Your task to perform on an android device: change text size in settings app Image 0: 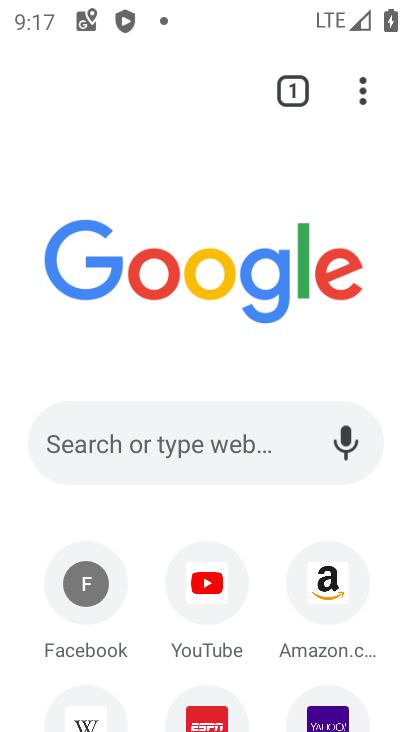
Step 0: click (368, 92)
Your task to perform on an android device: change text size in settings app Image 1: 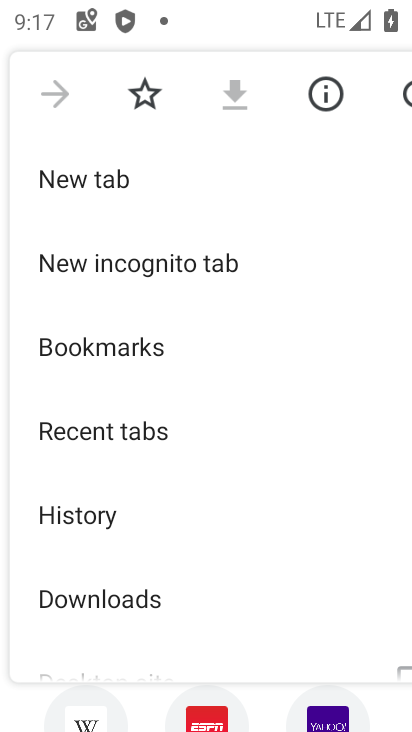
Step 1: drag from (201, 656) to (230, 439)
Your task to perform on an android device: change text size in settings app Image 2: 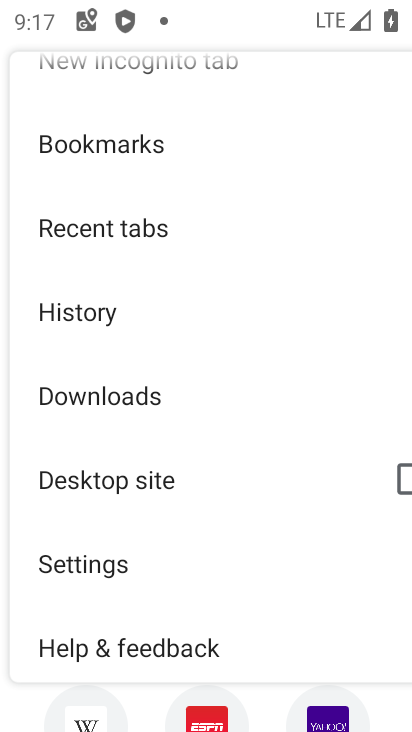
Step 2: press home button
Your task to perform on an android device: change text size in settings app Image 3: 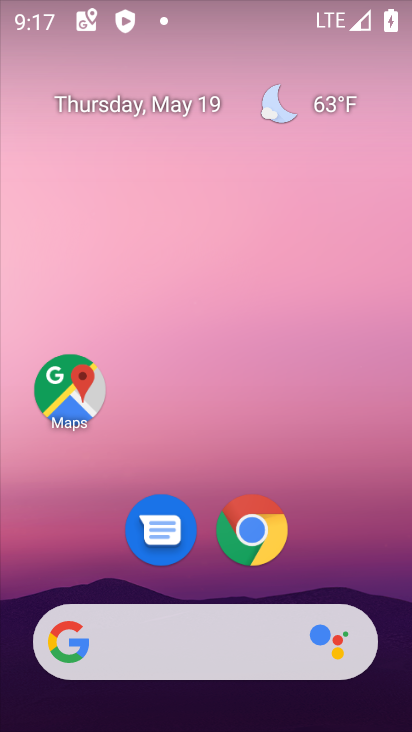
Step 3: drag from (181, 450) to (229, 226)
Your task to perform on an android device: change text size in settings app Image 4: 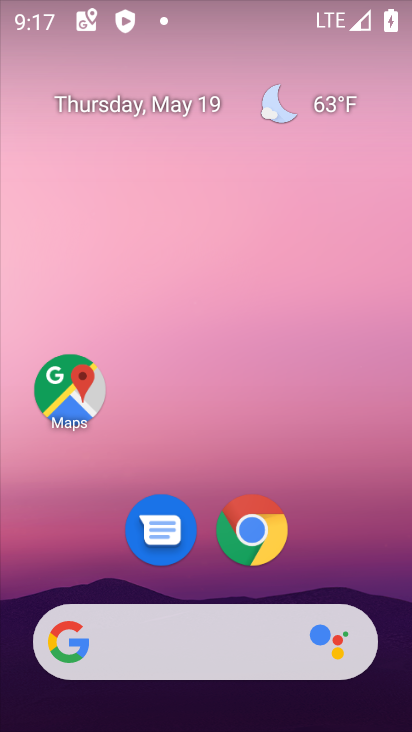
Step 4: drag from (233, 406) to (316, 1)
Your task to perform on an android device: change text size in settings app Image 5: 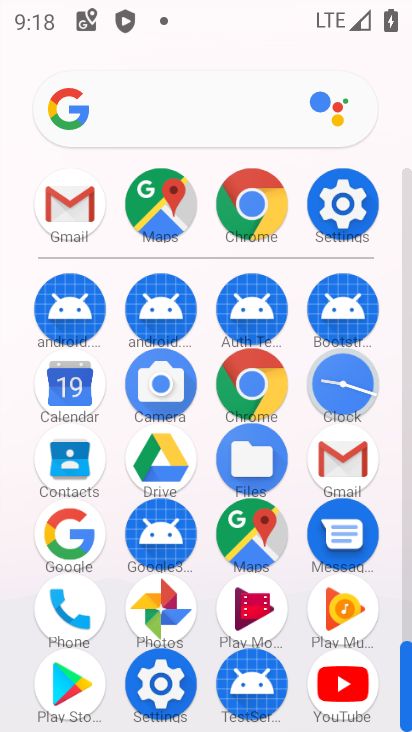
Step 5: click (342, 225)
Your task to perform on an android device: change text size in settings app Image 6: 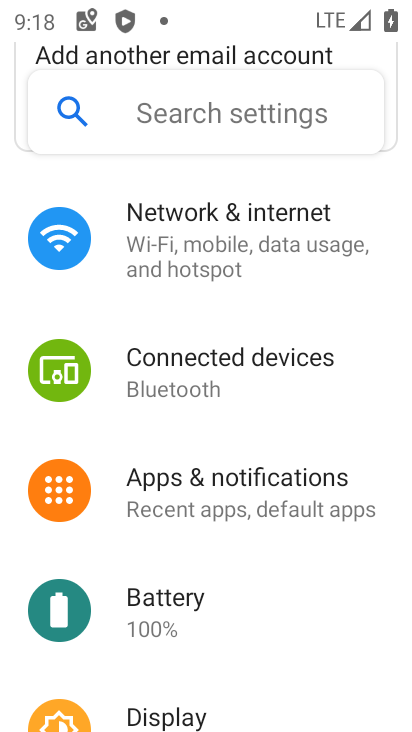
Step 6: click (255, 709)
Your task to perform on an android device: change text size in settings app Image 7: 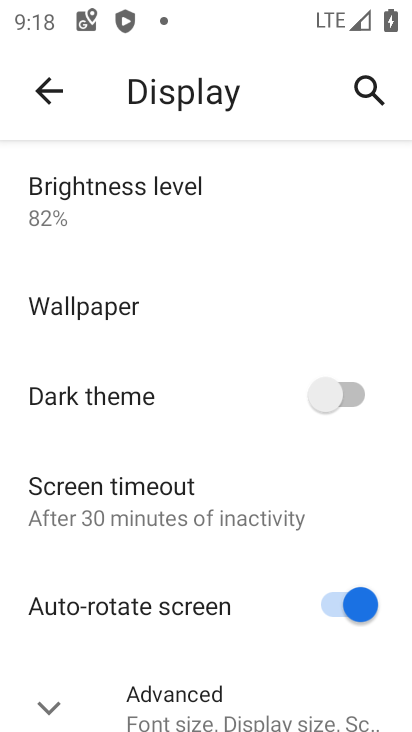
Step 7: click (249, 720)
Your task to perform on an android device: change text size in settings app Image 8: 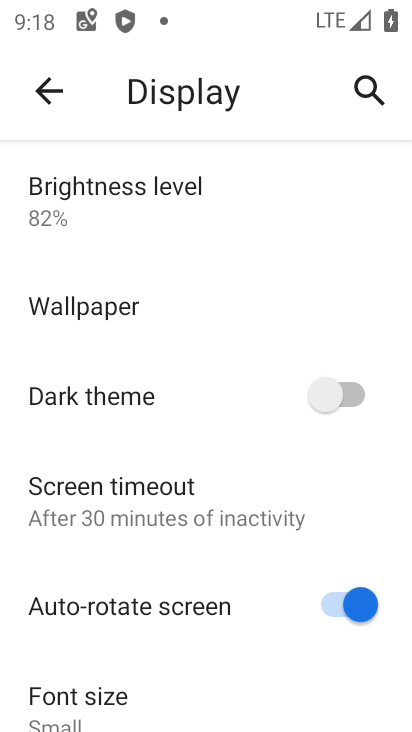
Step 8: click (245, 707)
Your task to perform on an android device: change text size in settings app Image 9: 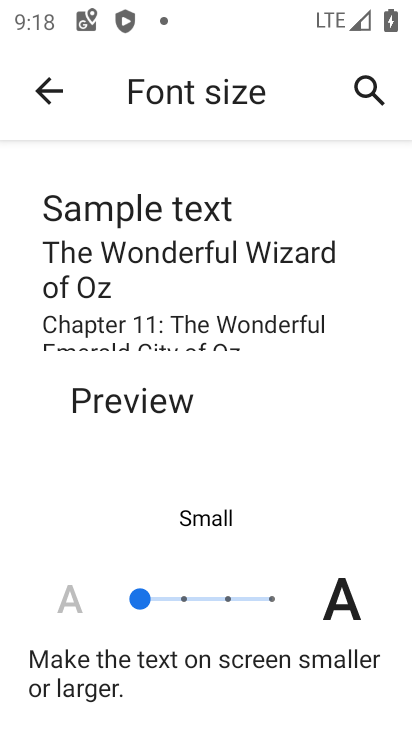
Step 9: click (186, 599)
Your task to perform on an android device: change text size in settings app Image 10: 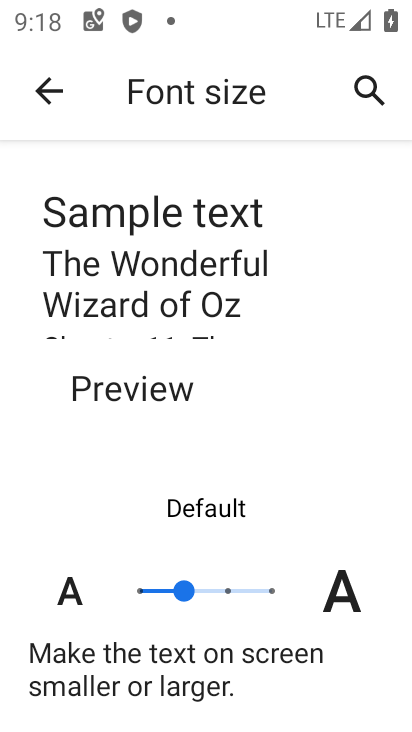
Step 10: task complete